Your task to perform on an android device: turn on the 24-hour format for clock Image 0: 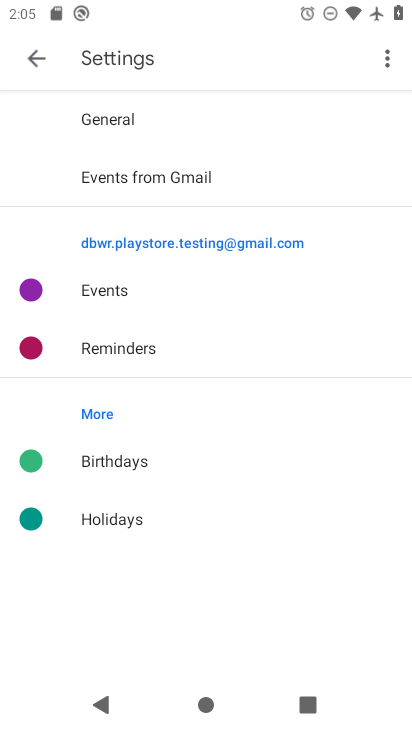
Step 0: press home button
Your task to perform on an android device: turn on the 24-hour format for clock Image 1: 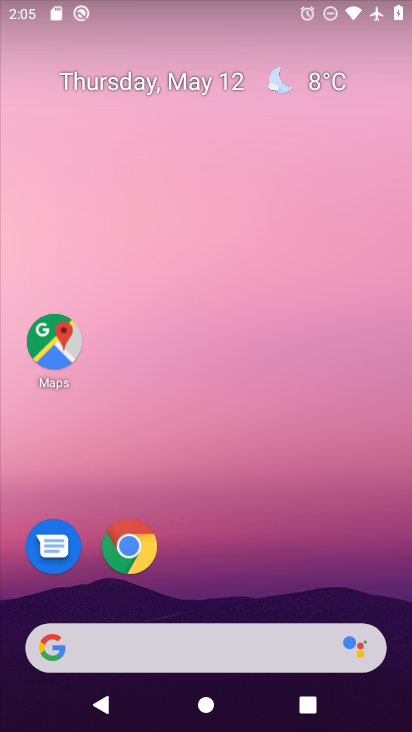
Step 1: drag from (125, 656) to (238, 251)
Your task to perform on an android device: turn on the 24-hour format for clock Image 2: 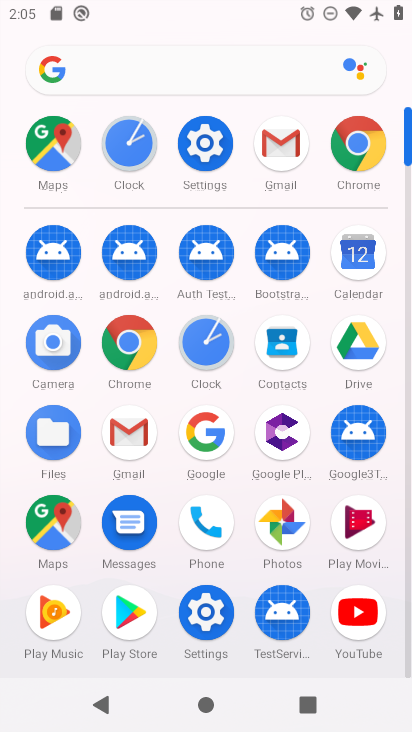
Step 2: click (129, 150)
Your task to perform on an android device: turn on the 24-hour format for clock Image 3: 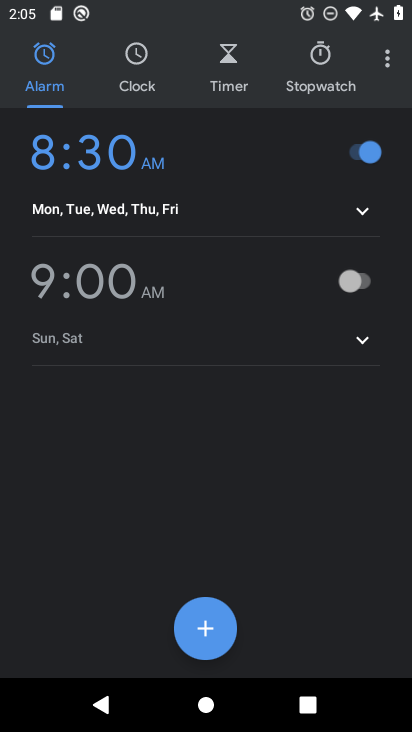
Step 3: click (388, 66)
Your task to perform on an android device: turn on the 24-hour format for clock Image 4: 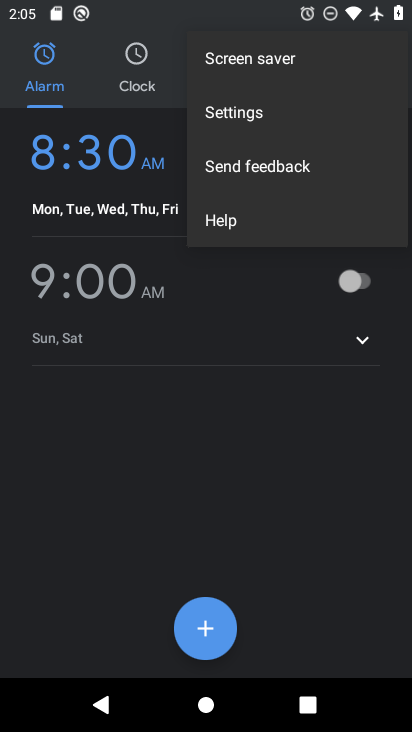
Step 4: click (256, 118)
Your task to perform on an android device: turn on the 24-hour format for clock Image 5: 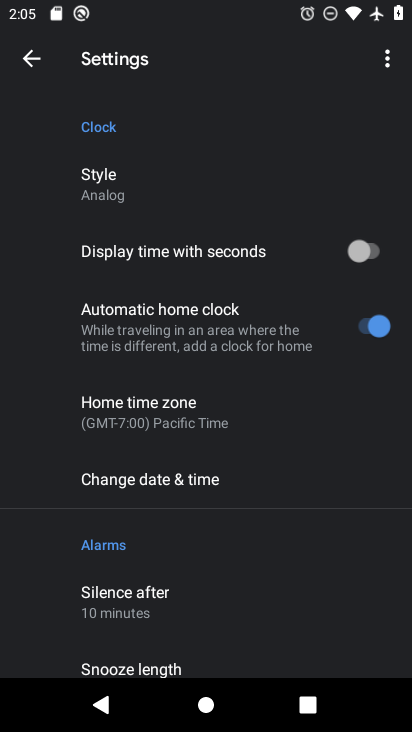
Step 5: drag from (197, 592) to (307, 243)
Your task to perform on an android device: turn on the 24-hour format for clock Image 6: 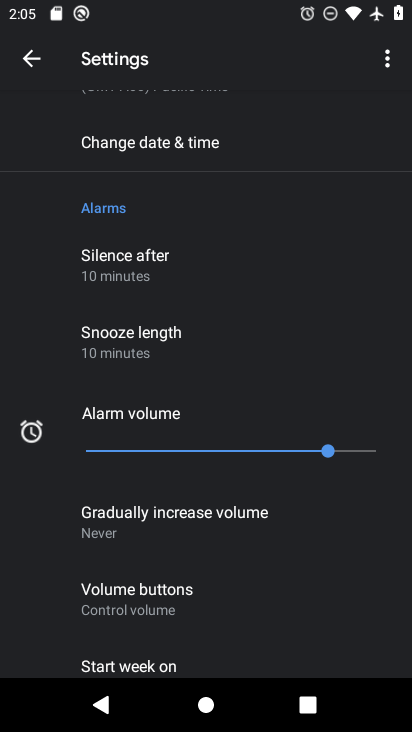
Step 6: click (144, 149)
Your task to perform on an android device: turn on the 24-hour format for clock Image 7: 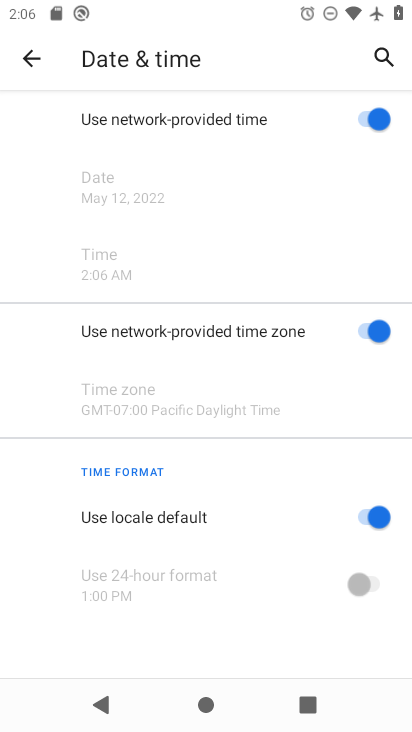
Step 7: drag from (230, 571) to (306, 213)
Your task to perform on an android device: turn on the 24-hour format for clock Image 8: 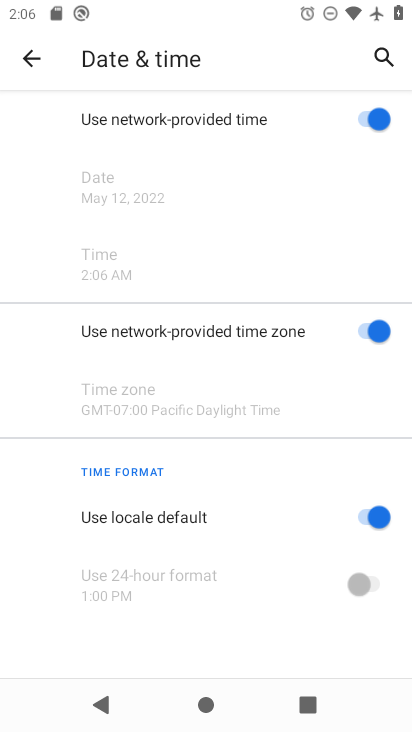
Step 8: click (362, 516)
Your task to perform on an android device: turn on the 24-hour format for clock Image 9: 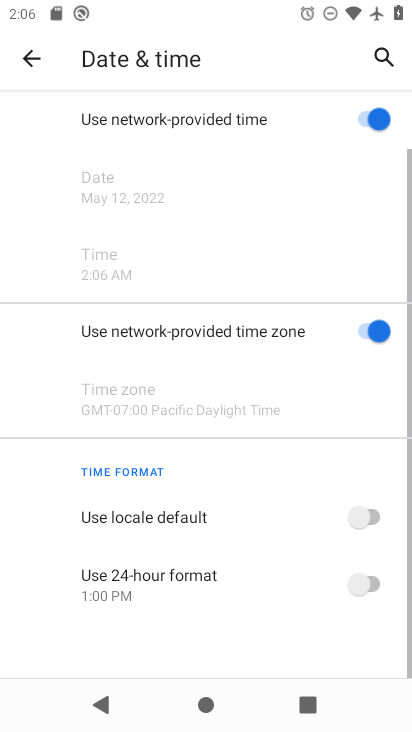
Step 9: click (376, 580)
Your task to perform on an android device: turn on the 24-hour format for clock Image 10: 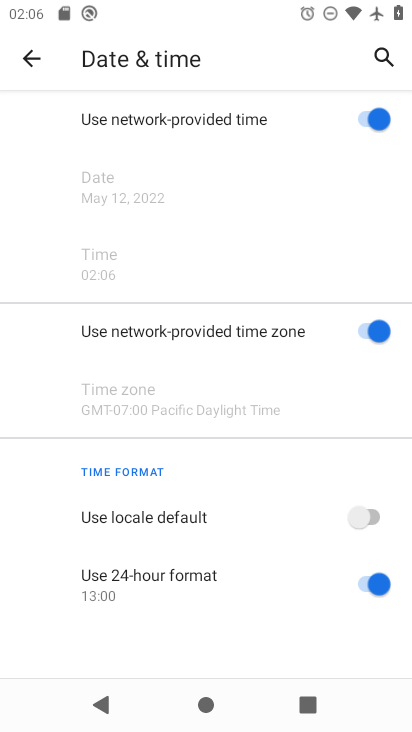
Step 10: task complete